Your task to perform on an android device: toggle improve location accuracy Image 0: 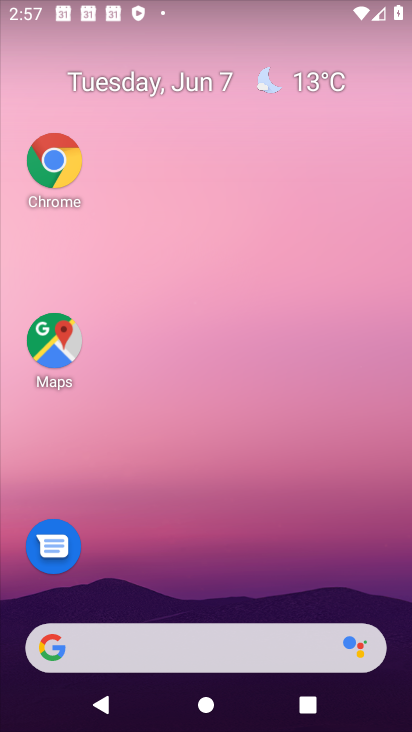
Step 0: drag from (234, 475) to (334, 175)
Your task to perform on an android device: toggle improve location accuracy Image 1: 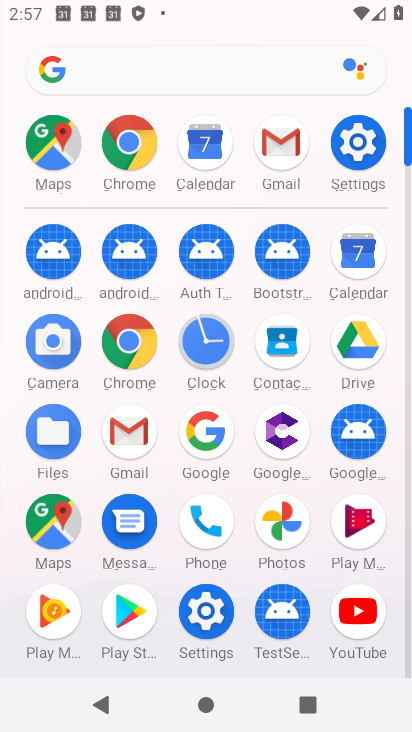
Step 1: click (354, 160)
Your task to perform on an android device: toggle improve location accuracy Image 2: 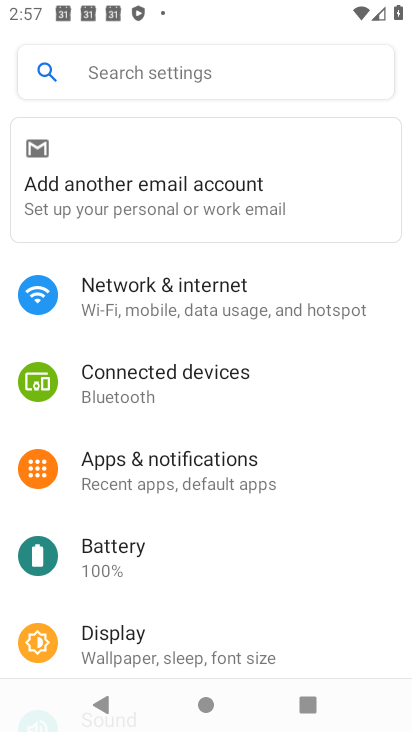
Step 2: drag from (220, 526) to (335, 115)
Your task to perform on an android device: toggle improve location accuracy Image 3: 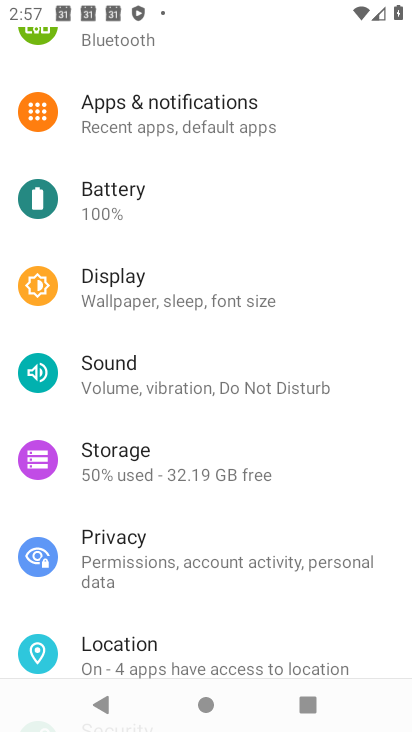
Step 3: click (123, 640)
Your task to perform on an android device: toggle improve location accuracy Image 4: 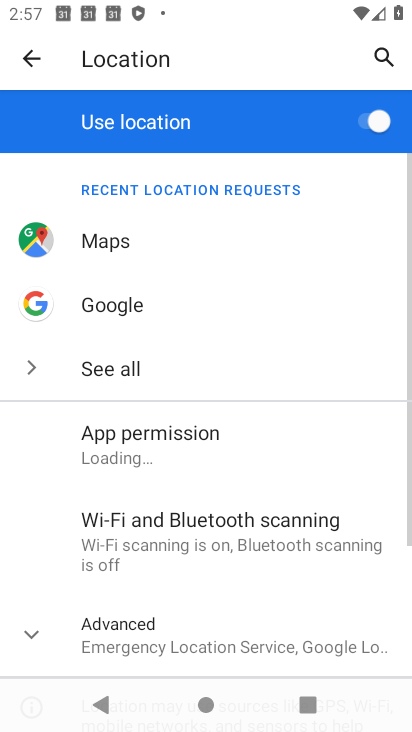
Step 4: click (146, 646)
Your task to perform on an android device: toggle improve location accuracy Image 5: 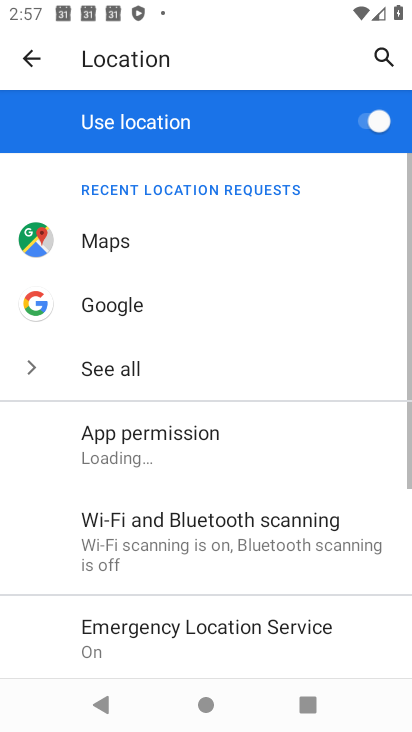
Step 5: drag from (208, 598) to (409, 131)
Your task to perform on an android device: toggle improve location accuracy Image 6: 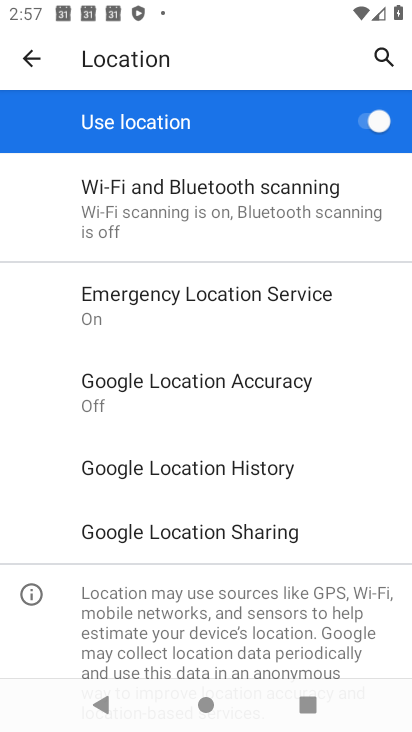
Step 6: click (194, 392)
Your task to perform on an android device: toggle improve location accuracy Image 7: 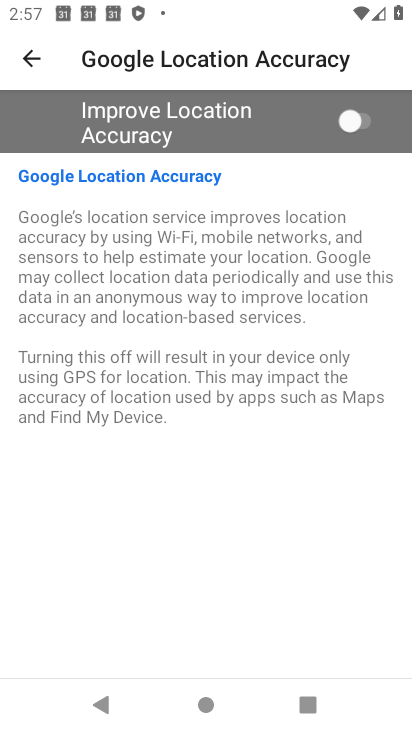
Step 7: click (340, 138)
Your task to perform on an android device: toggle improve location accuracy Image 8: 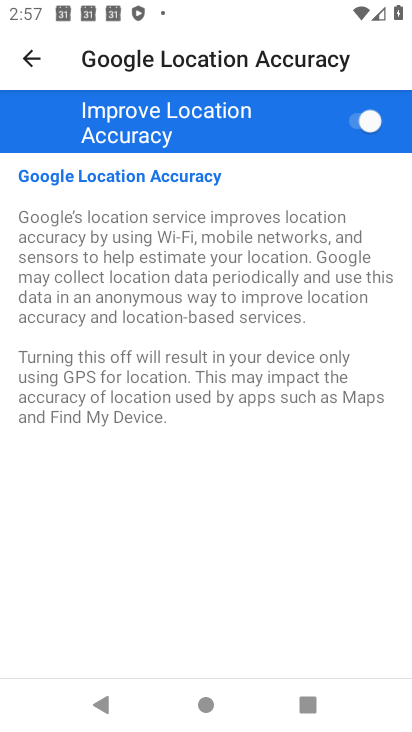
Step 8: task complete